Your task to perform on an android device: Open Chrome and go to settings Image 0: 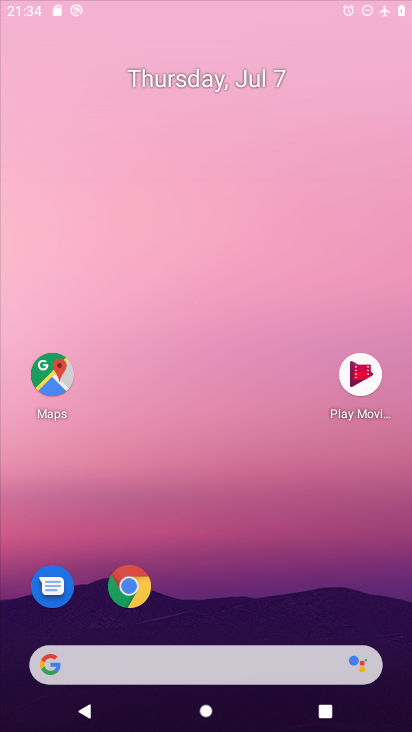
Step 0: drag from (245, 623) to (237, 359)
Your task to perform on an android device: Open Chrome and go to settings Image 1: 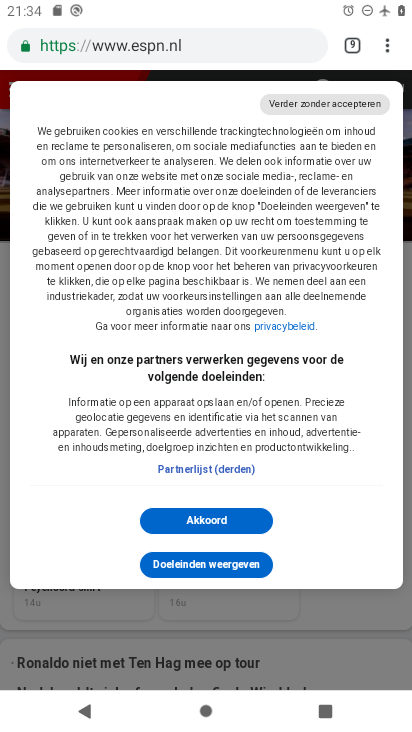
Step 1: press home button
Your task to perform on an android device: Open Chrome and go to settings Image 2: 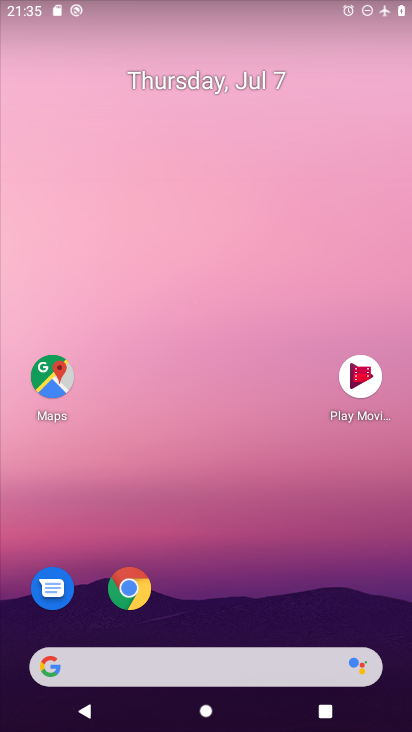
Step 2: drag from (257, 544) to (245, 212)
Your task to perform on an android device: Open Chrome and go to settings Image 3: 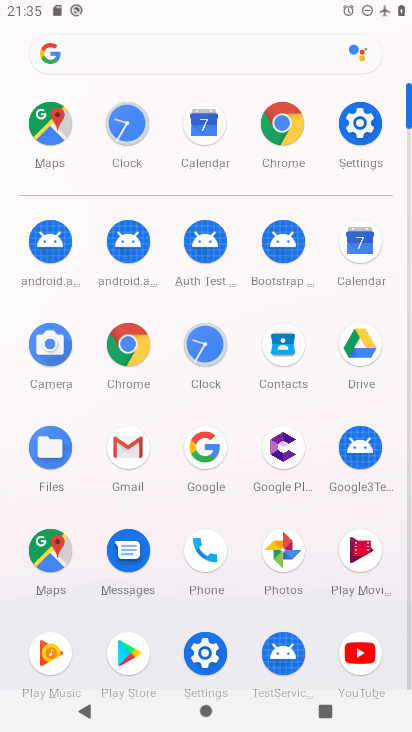
Step 3: click (362, 117)
Your task to perform on an android device: Open Chrome and go to settings Image 4: 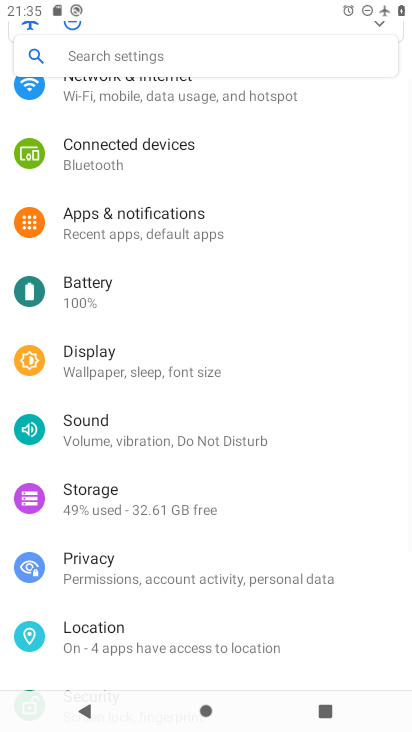
Step 4: press home button
Your task to perform on an android device: Open Chrome and go to settings Image 5: 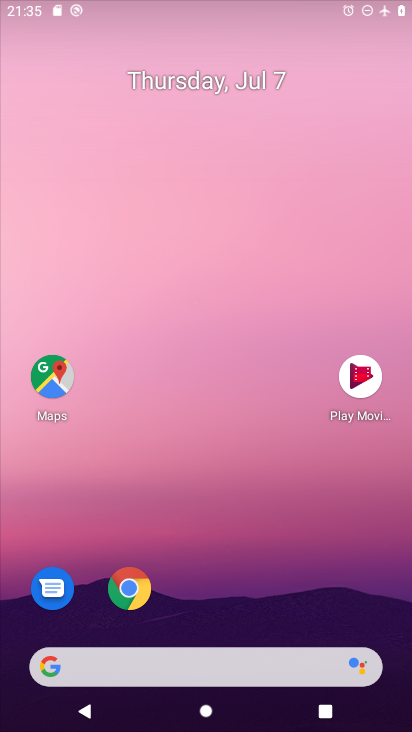
Step 5: drag from (226, 594) to (179, 188)
Your task to perform on an android device: Open Chrome and go to settings Image 6: 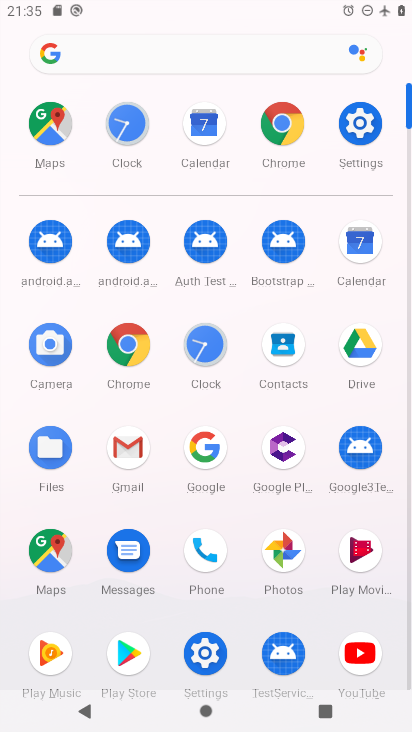
Step 6: click (202, 445)
Your task to perform on an android device: Open Chrome and go to settings Image 7: 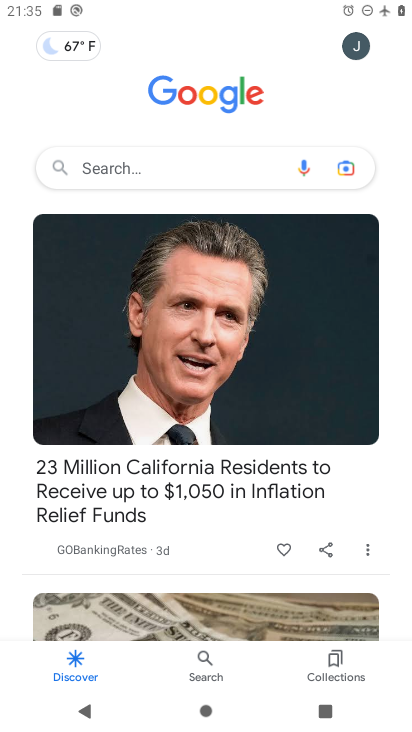
Step 7: click (363, 46)
Your task to perform on an android device: Open Chrome and go to settings Image 8: 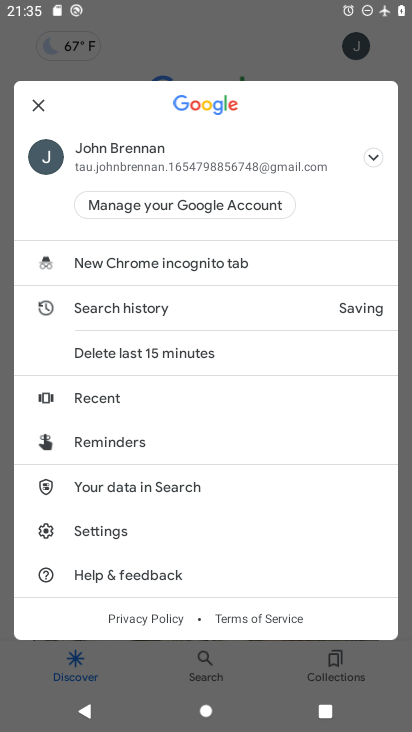
Step 8: click (146, 532)
Your task to perform on an android device: Open Chrome and go to settings Image 9: 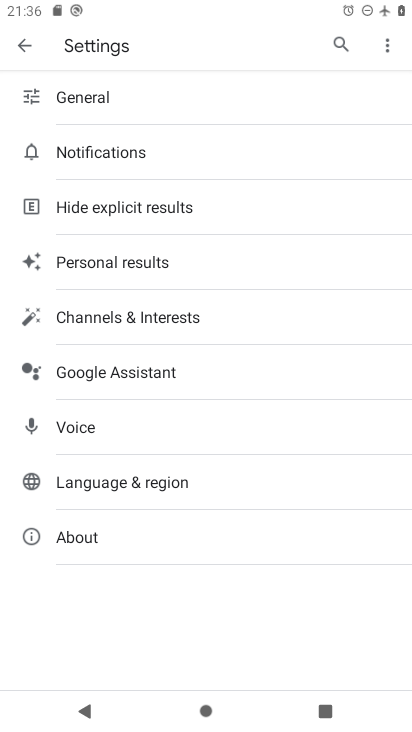
Step 9: click (145, 550)
Your task to perform on an android device: Open Chrome and go to settings Image 10: 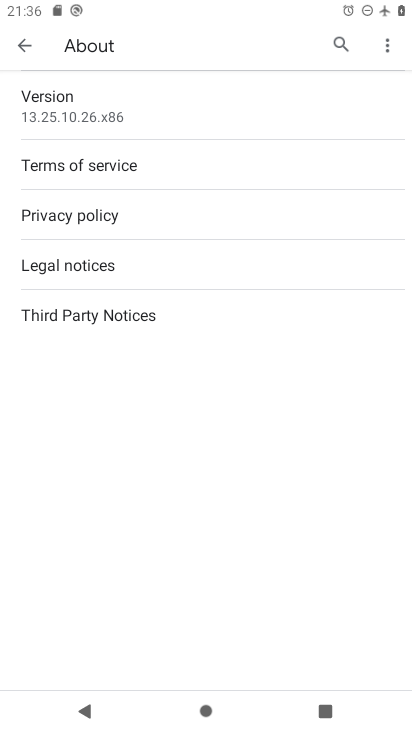
Step 10: click (46, 44)
Your task to perform on an android device: Open Chrome and go to settings Image 11: 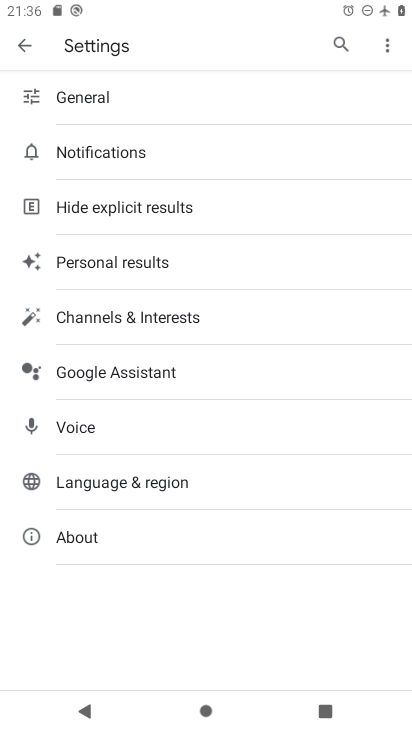
Step 11: task complete